Your task to perform on an android device: read, delete, or share a saved page in the chrome app Image 0: 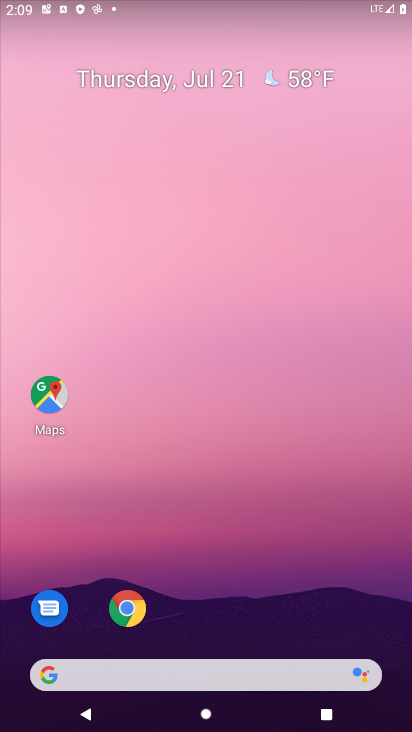
Step 0: drag from (387, 667) to (181, 60)
Your task to perform on an android device: read, delete, or share a saved page in the chrome app Image 1: 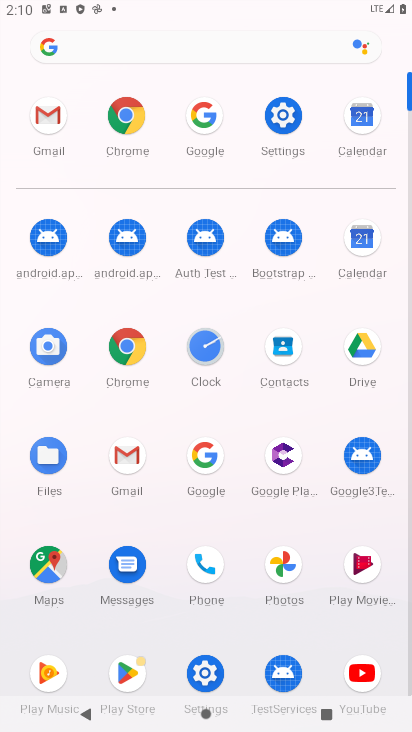
Step 1: click (125, 95)
Your task to perform on an android device: read, delete, or share a saved page in the chrome app Image 2: 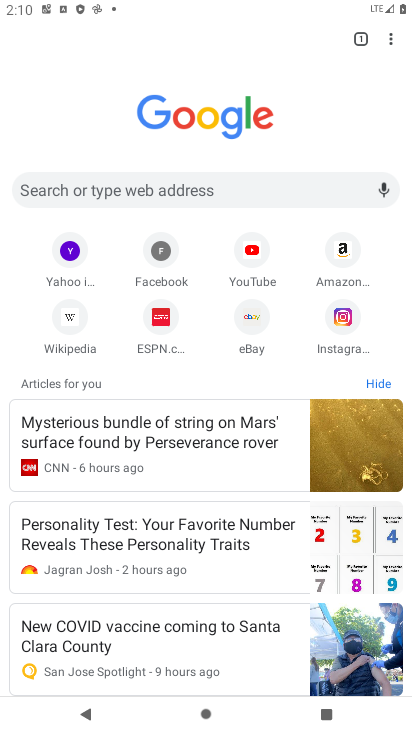
Step 2: task complete